Your task to perform on an android device: clear all cookies in the chrome app Image 0: 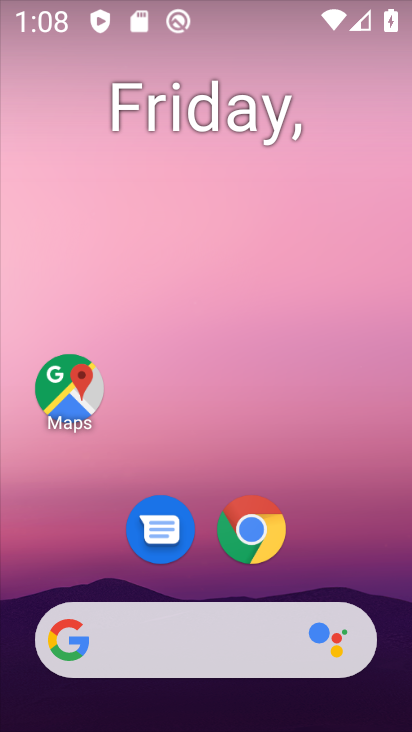
Step 0: drag from (344, 473) to (375, 24)
Your task to perform on an android device: clear all cookies in the chrome app Image 1: 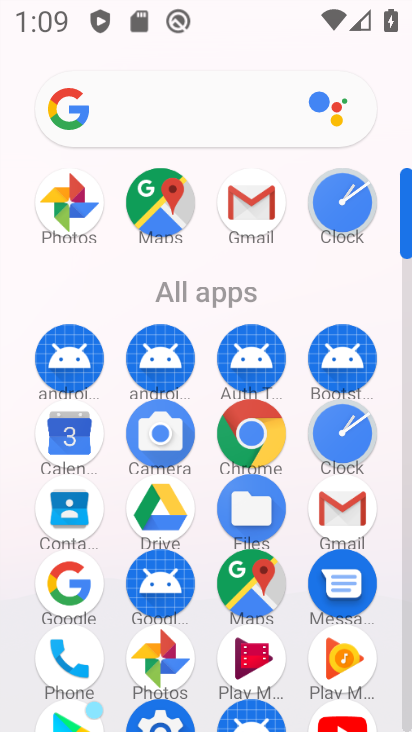
Step 1: click (261, 439)
Your task to perform on an android device: clear all cookies in the chrome app Image 2: 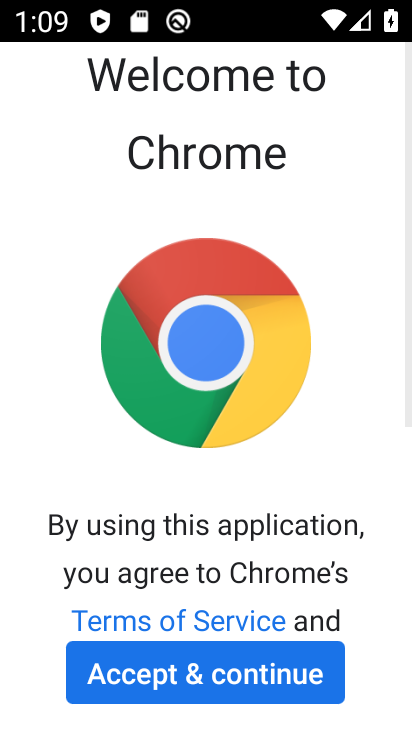
Step 2: click (309, 697)
Your task to perform on an android device: clear all cookies in the chrome app Image 3: 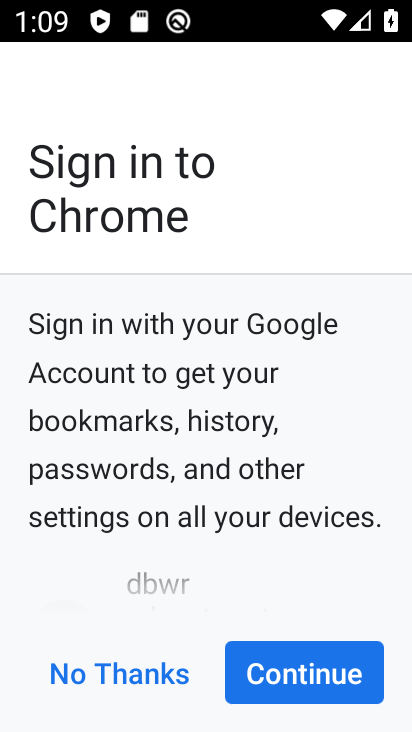
Step 3: click (317, 649)
Your task to perform on an android device: clear all cookies in the chrome app Image 4: 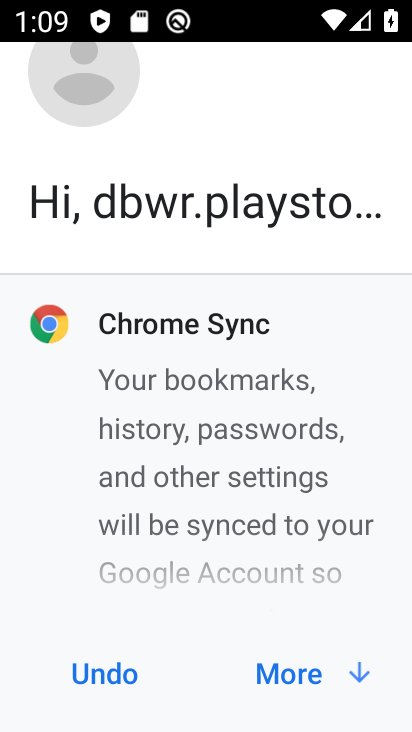
Step 4: click (315, 668)
Your task to perform on an android device: clear all cookies in the chrome app Image 5: 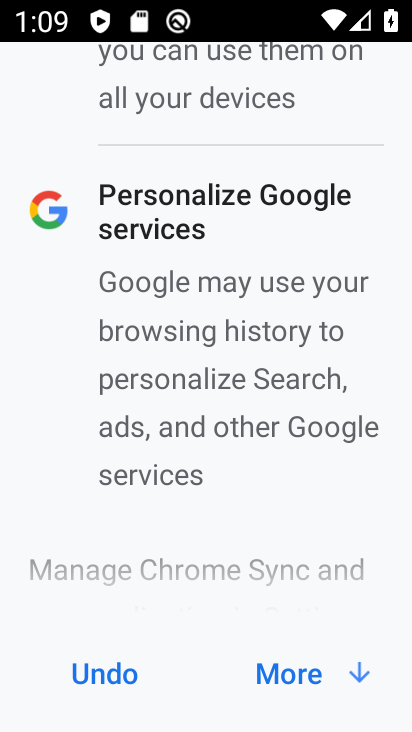
Step 5: click (312, 666)
Your task to perform on an android device: clear all cookies in the chrome app Image 6: 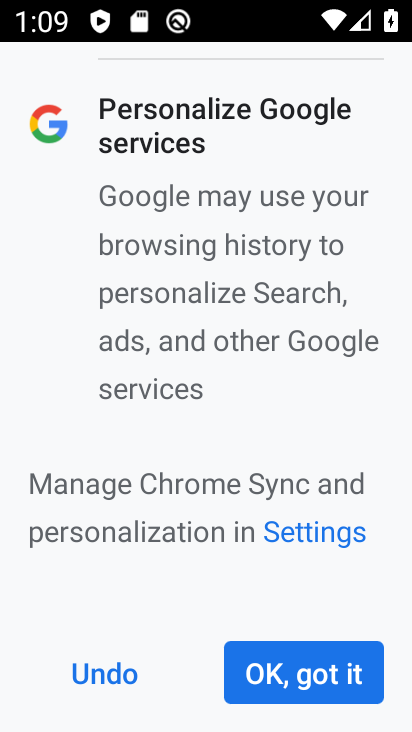
Step 6: click (312, 664)
Your task to perform on an android device: clear all cookies in the chrome app Image 7: 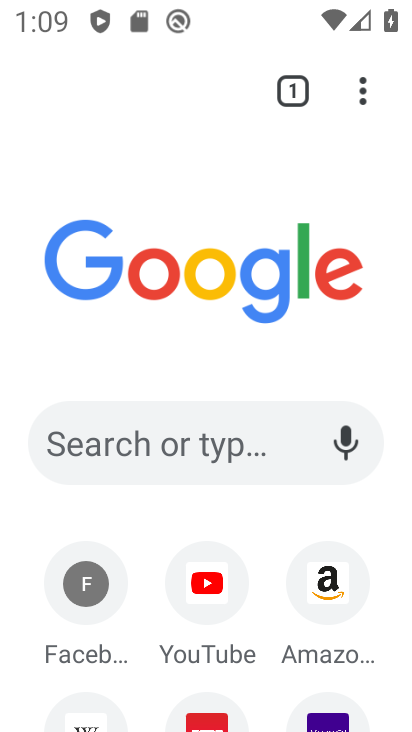
Step 7: drag from (361, 101) to (193, 558)
Your task to perform on an android device: clear all cookies in the chrome app Image 8: 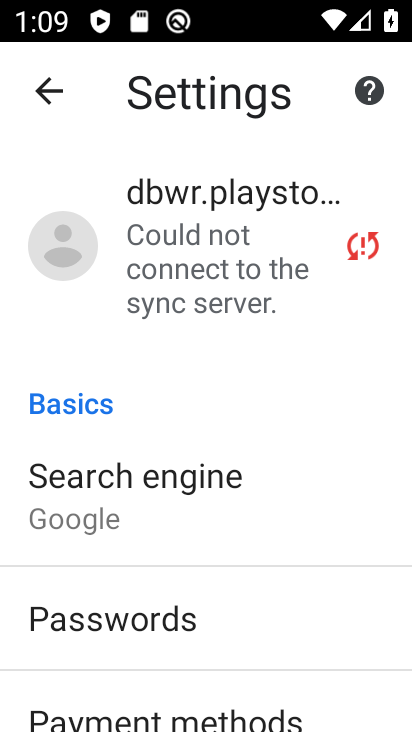
Step 8: drag from (290, 623) to (308, 347)
Your task to perform on an android device: clear all cookies in the chrome app Image 9: 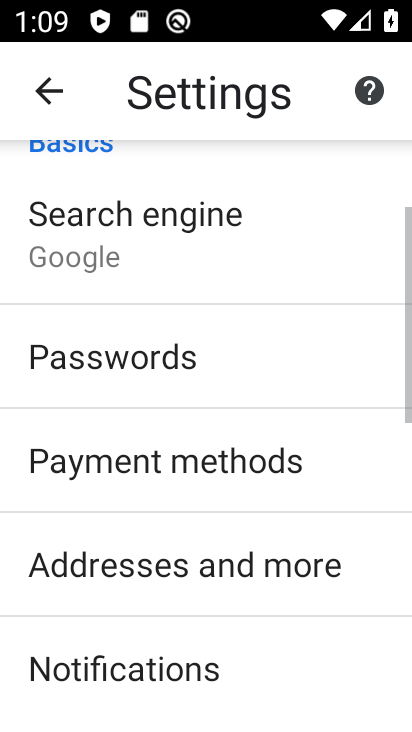
Step 9: drag from (354, 616) to (339, 327)
Your task to perform on an android device: clear all cookies in the chrome app Image 10: 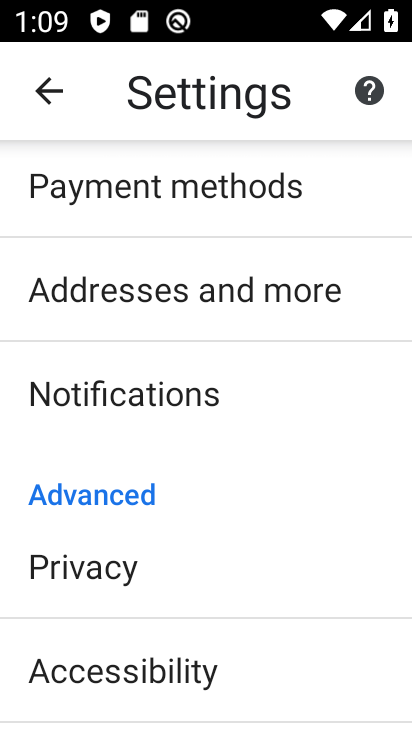
Step 10: drag from (338, 593) to (318, 282)
Your task to perform on an android device: clear all cookies in the chrome app Image 11: 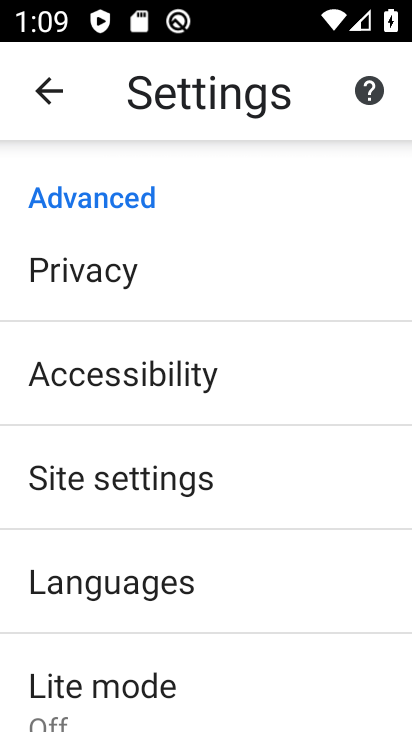
Step 11: drag from (294, 587) to (285, 314)
Your task to perform on an android device: clear all cookies in the chrome app Image 12: 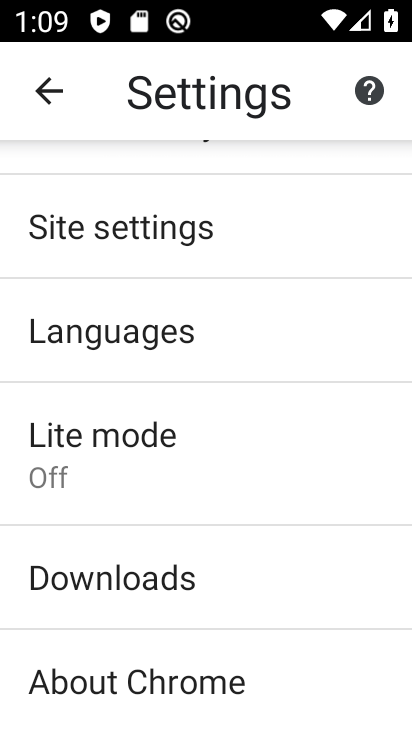
Step 12: click (189, 257)
Your task to perform on an android device: clear all cookies in the chrome app Image 13: 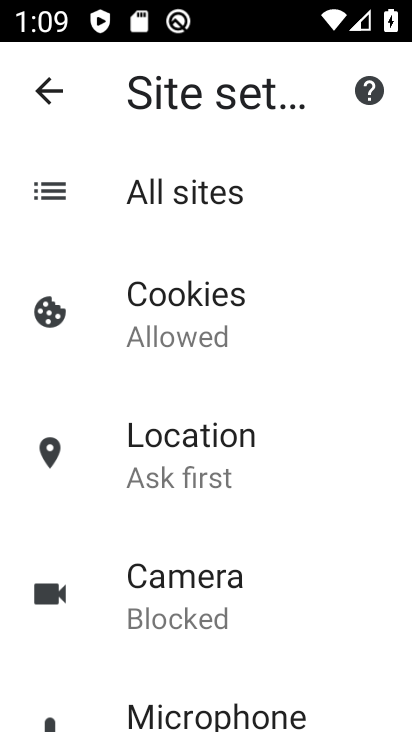
Step 13: click (199, 193)
Your task to perform on an android device: clear all cookies in the chrome app Image 14: 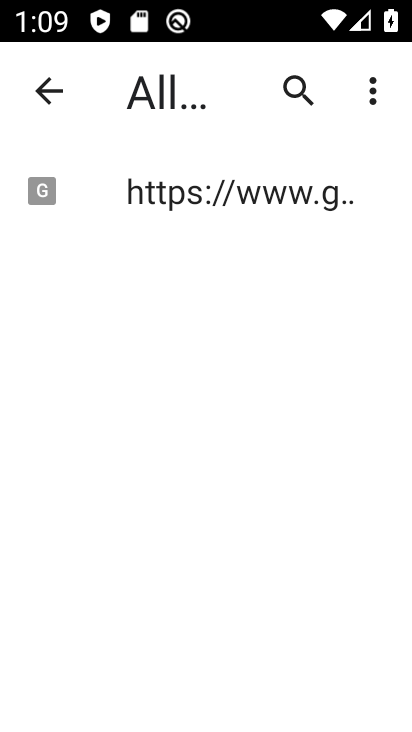
Step 14: task complete